Your task to perform on an android device: Go to Google Image 0: 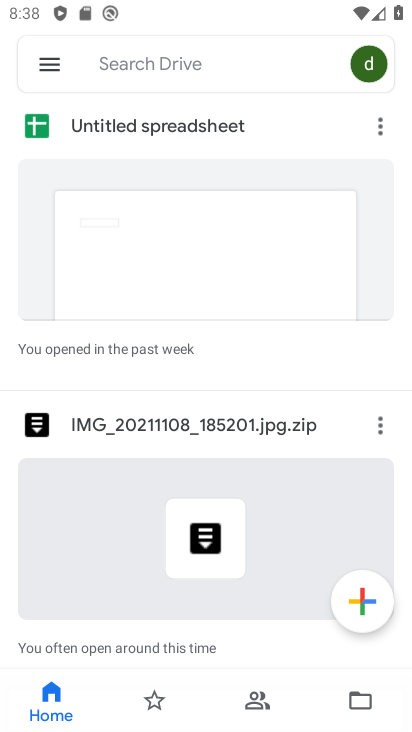
Step 0: press home button
Your task to perform on an android device: Go to Google Image 1: 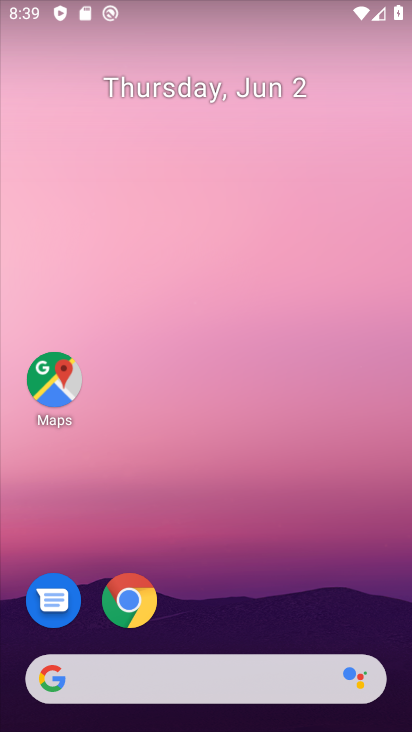
Step 1: click (184, 679)
Your task to perform on an android device: Go to Google Image 2: 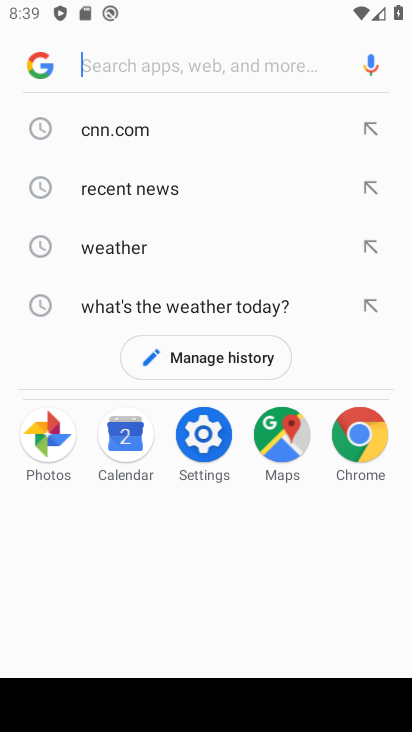
Step 2: type "Google"
Your task to perform on an android device: Go to Google Image 3: 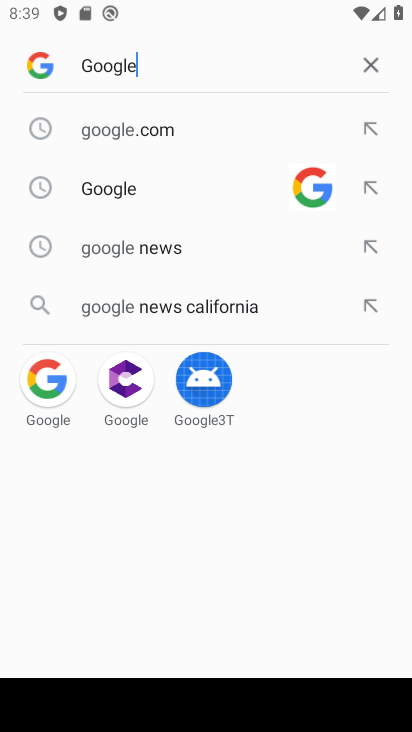
Step 3: click (173, 185)
Your task to perform on an android device: Go to Google Image 4: 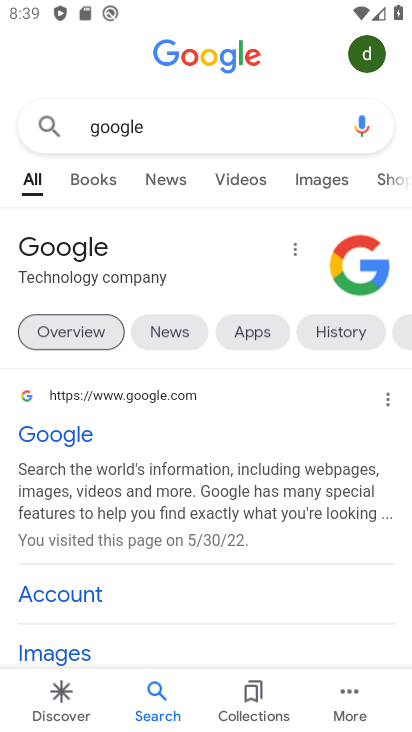
Step 4: click (53, 431)
Your task to perform on an android device: Go to Google Image 5: 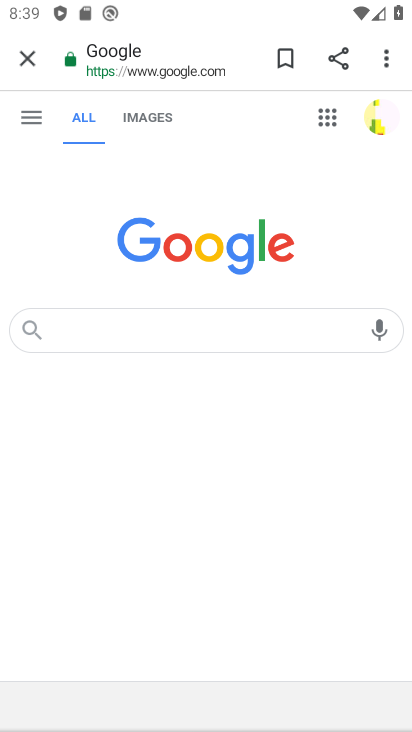
Step 5: task complete